Your task to perform on an android device: Open sound settings Image 0: 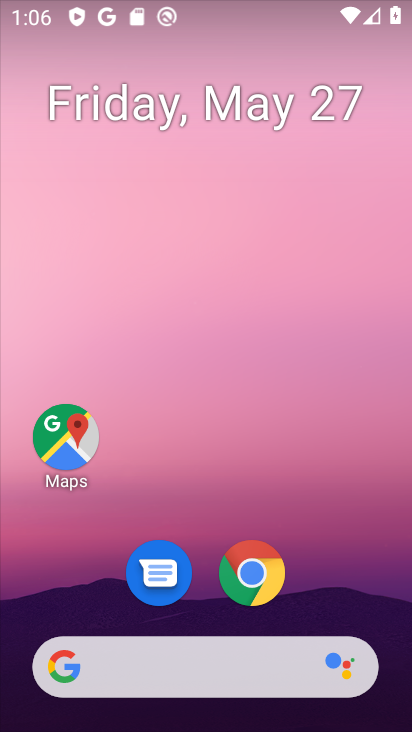
Step 0: drag from (222, 614) to (212, 43)
Your task to perform on an android device: Open sound settings Image 1: 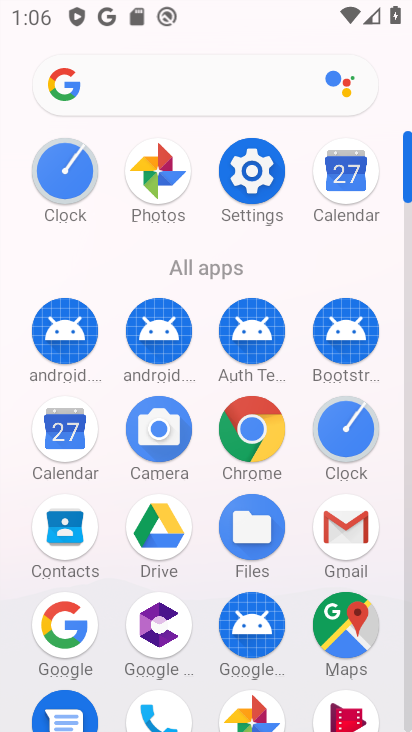
Step 1: click (248, 195)
Your task to perform on an android device: Open sound settings Image 2: 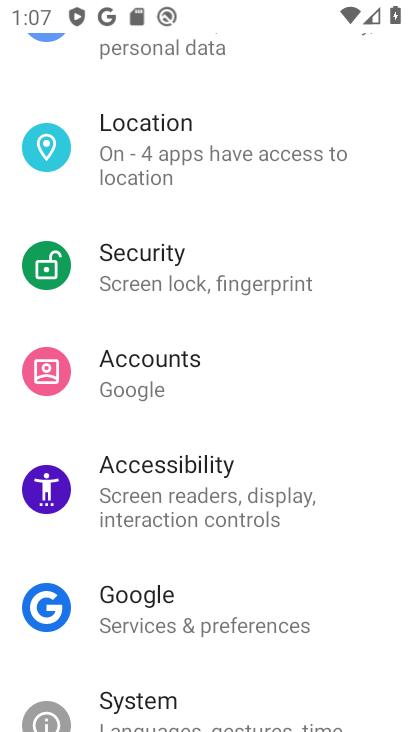
Step 2: drag from (141, 201) to (165, 659)
Your task to perform on an android device: Open sound settings Image 3: 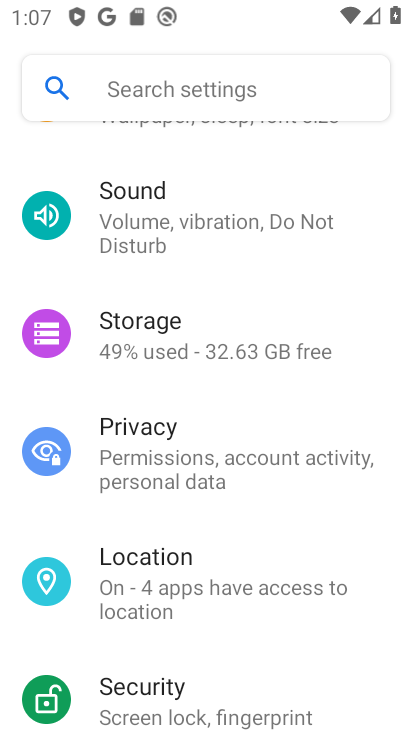
Step 3: click (164, 212)
Your task to perform on an android device: Open sound settings Image 4: 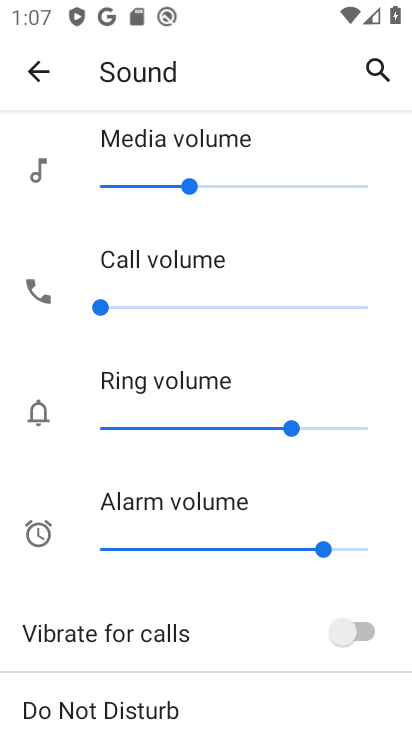
Step 4: task complete